Your task to perform on an android device: Search for vegetarian restaurants on Maps Image 0: 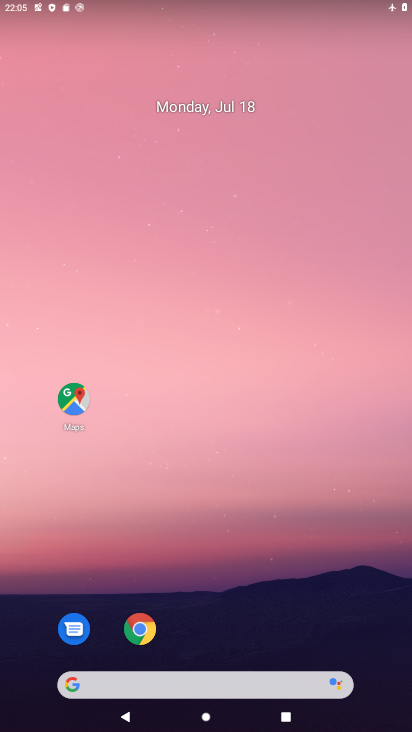
Step 0: click (78, 394)
Your task to perform on an android device: Search for vegetarian restaurants on Maps Image 1: 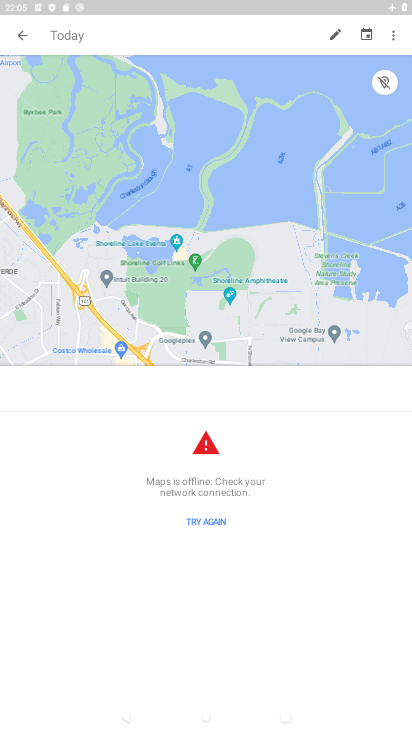
Step 1: click (27, 30)
Your task to perform on an android device: Search for vegetarian restaurants on Maps Image 2: 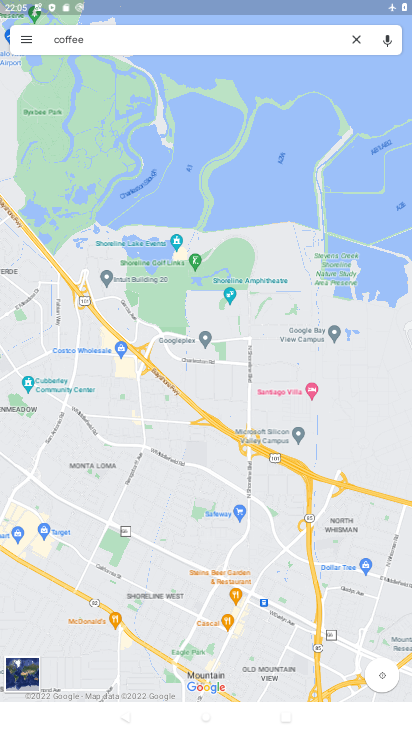
Step 2: click (136, 47)
Your task to perform on an android device: Search for vegetarian restaurants on Maps Image 3: 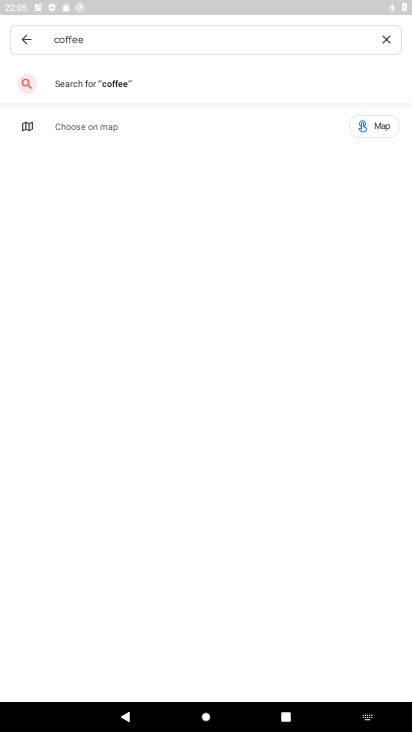
Step 3: click (393, 40)
Your task to perform on an android device: Search for vegetarian restaurants on Maps Image 4: 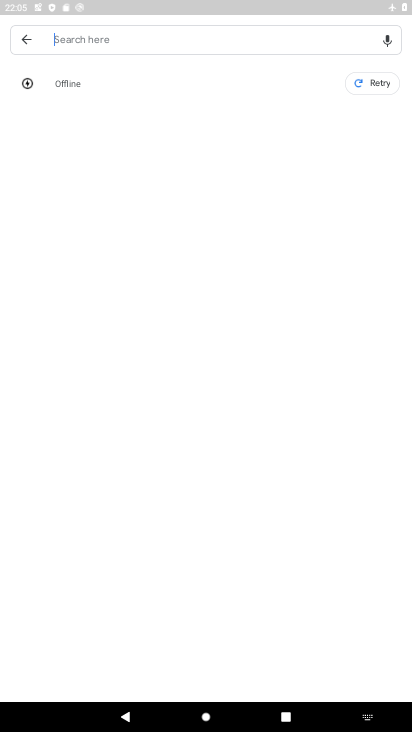
Step 4: type "vegetarian restaurants"
Your task to perform on an android device: Search for vegetarian restaurants on Maps Image 5: 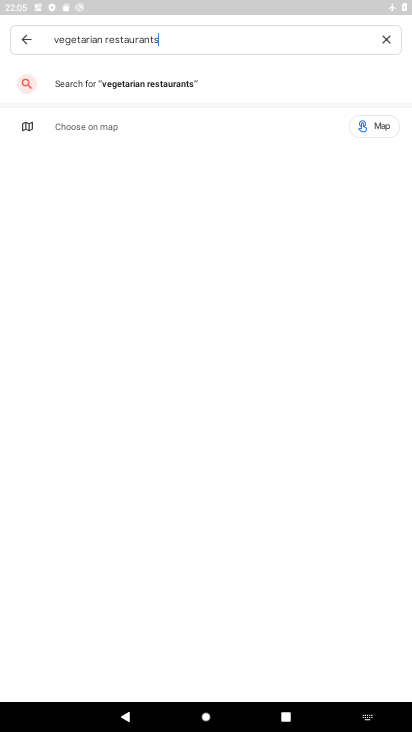
Step 5: press enter
Your task to perform on an android device: Search for vegetarian restaurants on Maps Image 6: 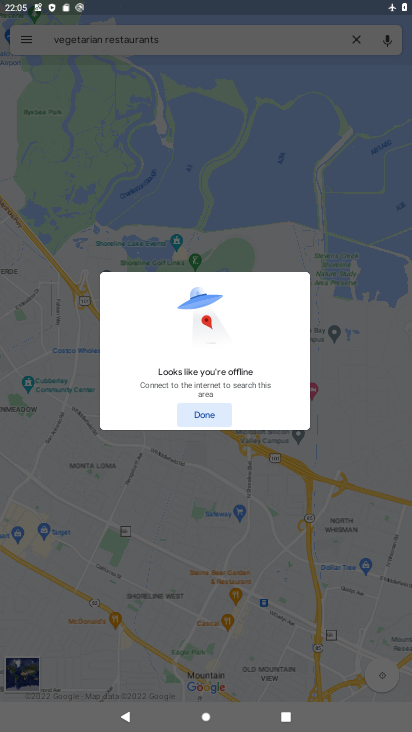
Step 6: task complete